Your task to perform on an android device: Open Wikipedia Image 0: 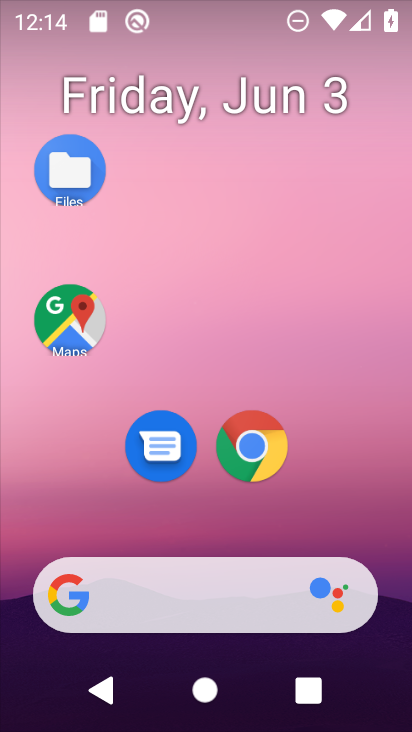
Step 0: drag from (250, 701) to (171, 46)
Your task to perform on an android device: Open Wikipedia Image 1: 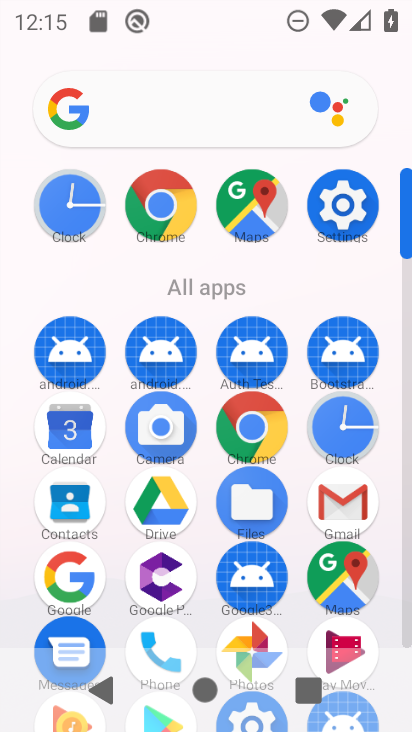
Step 1: click (174, 217)
Your task to perform on an android device: Open Wikipedia Image 2: 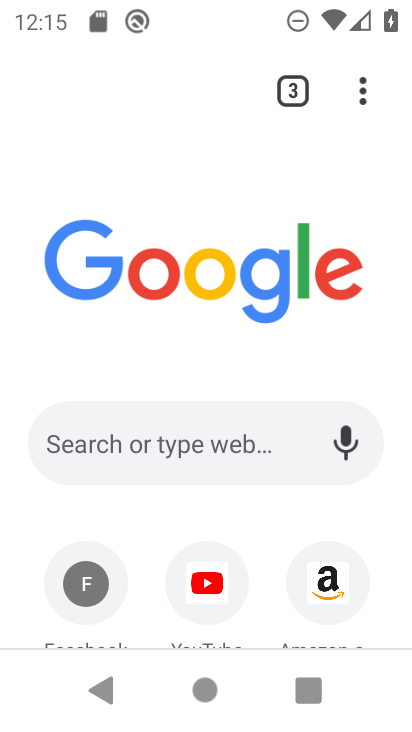
Step 2: click (176, 214)
Your task to perform on an android device: Open Wikipedia Image 3: 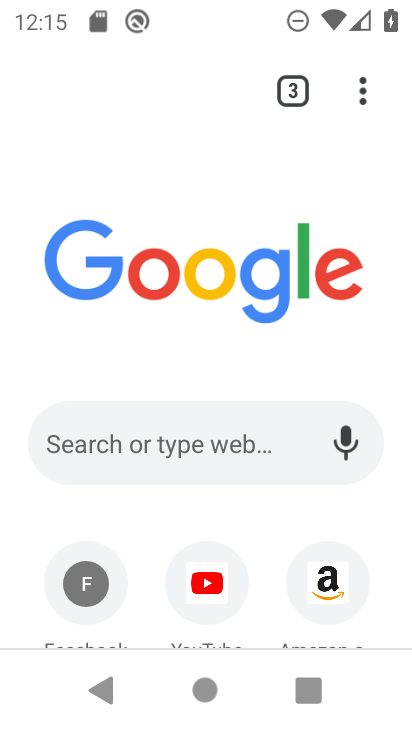
Step 3: click (172, 220)
Your task to perform on an android device: Open Wikipedia Image 4: 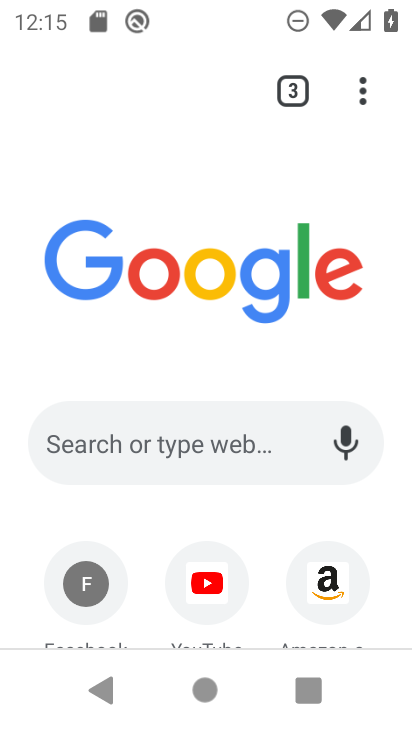
Step 4: drag from (270, 580) to (266, 308)
Your task to perform on an android device: Open Wikipedia Image 5: 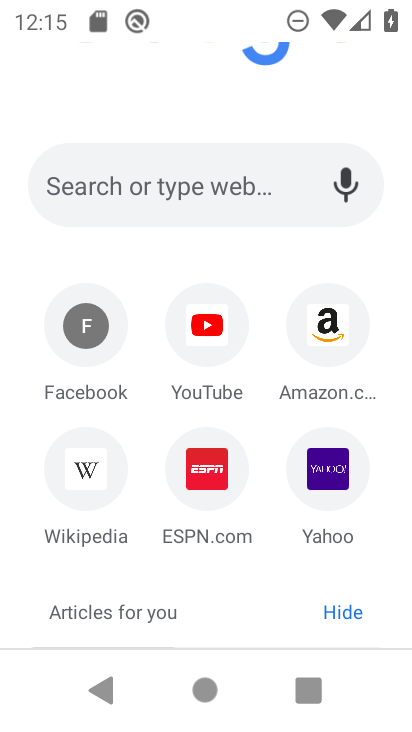
Step 5: drag from (281, 476) to (236, 157)
Your task to perform on an android device: Open Wikipedia Image 6: 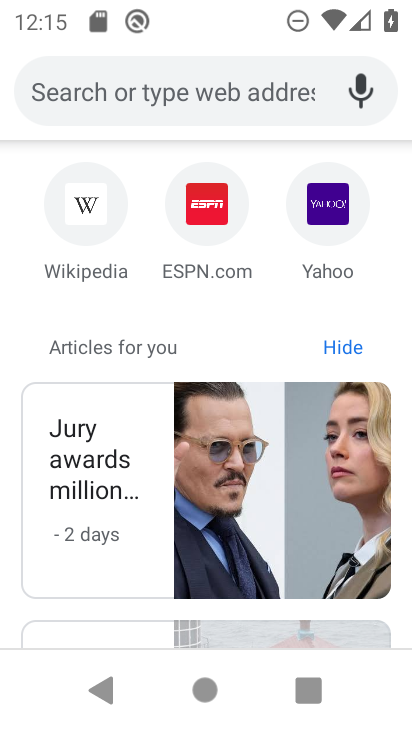
Step 6: drag from (257, 484) to (214, 67)
Your task to perform on an android device: Open Wikipedia Image 7: 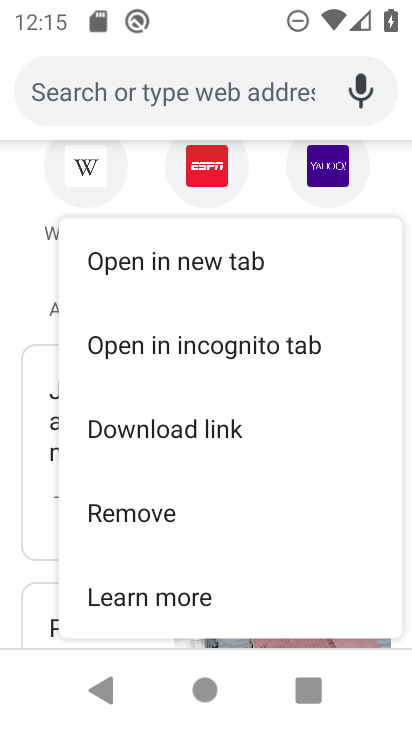
Step 7: drag from (206, 42) to (237, 6)
Your task to perform on an android device: Open Wikipedia Image 8: 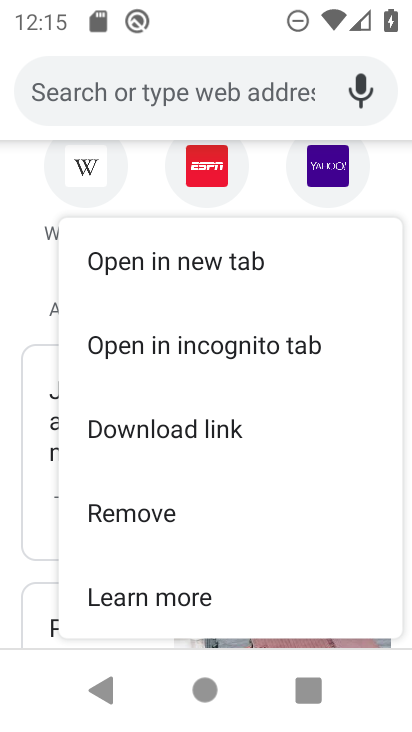
Step 8: click (84, 175)
Your task to perform on an android device: Open Wikipedia Image 9: 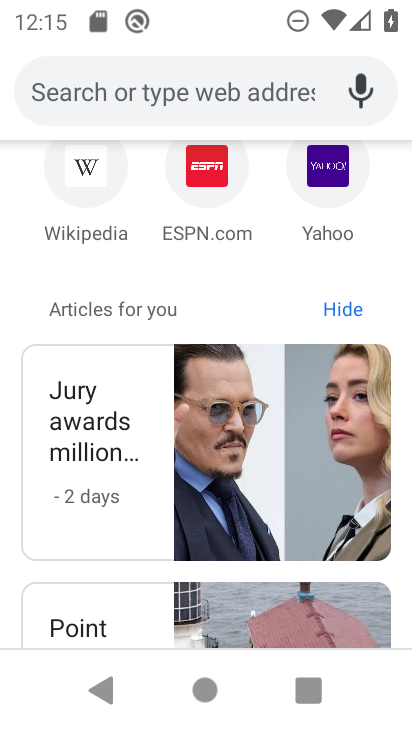
Step 9: click (86, 174)
Your task to perform on an android device: Open Wikipedia Image 10: 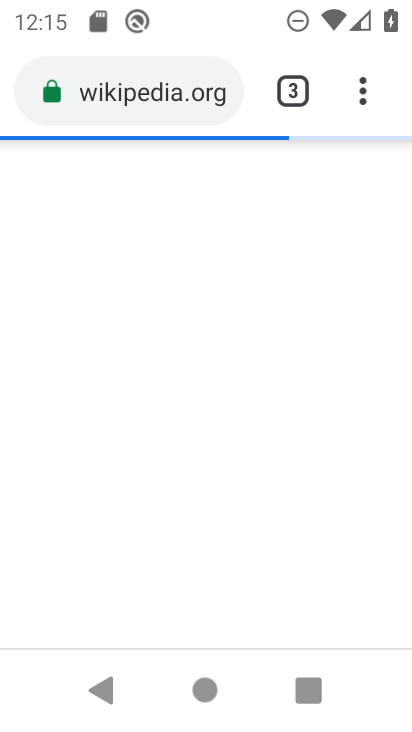
Step 10: click (144, 263)
Your task to perform on an android device: Open Wikipedia Image 11: 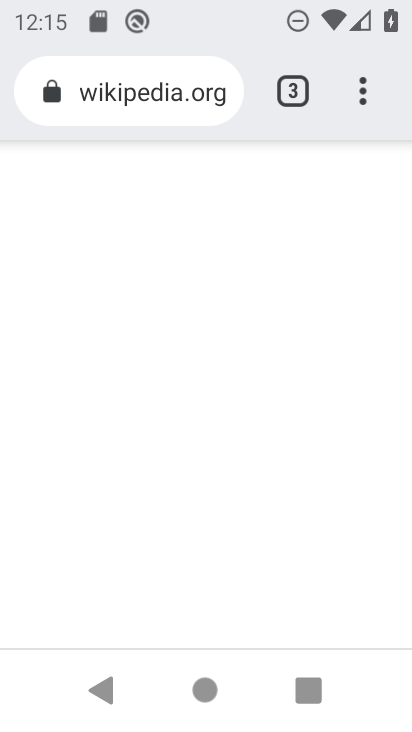
Step 11: task complete